Your task to perform on an android device: What's on my calendar tomorrow? Image 0: 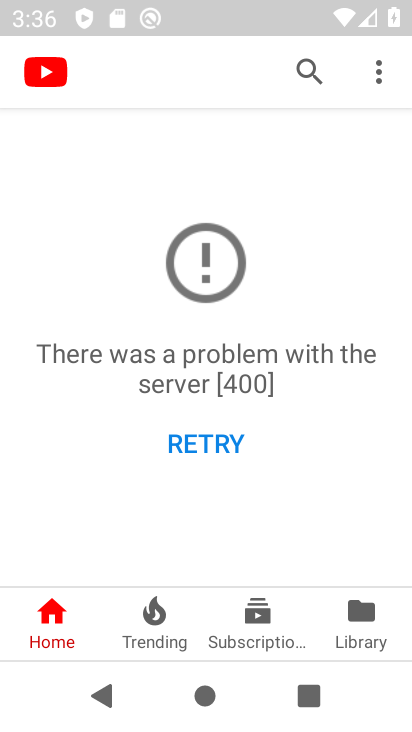
Step 0: press home button
Your task to perform on an android device: What's on my calendar tomorrow? Image 1: 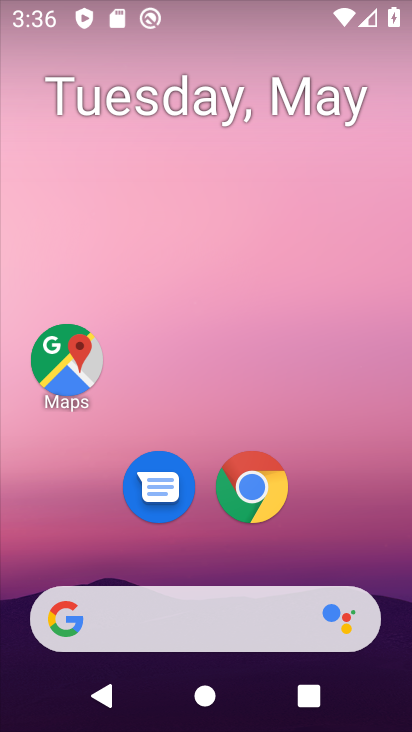
Step 1: drag from (192, 555) to (365, 55)
Your task to perform on an android device: What's on my calendar tomorrow? Image 2: 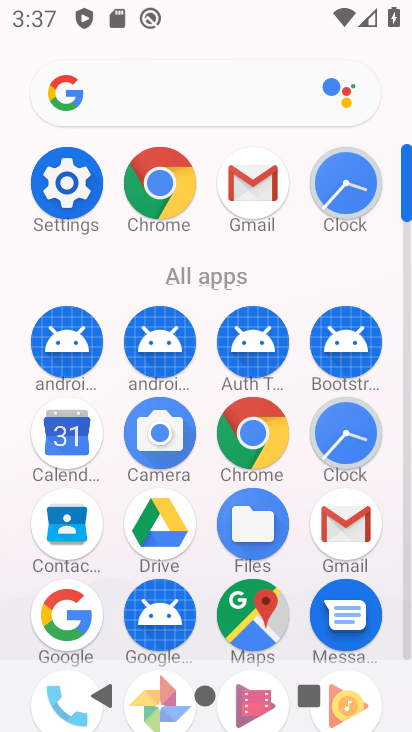
Step 2: click (41, 434)
Your task to perform on an android device: What's on my calendar tomorrow? Image 3: 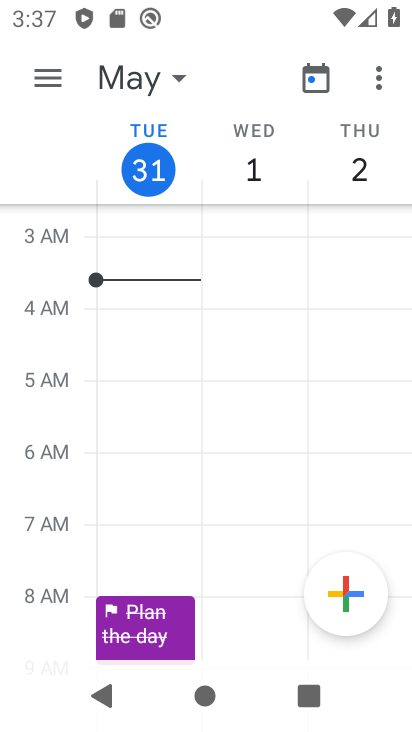
Step 3: task complete